Your task to perform on an android device: Open the calendar app, open the side menu, and click the "Day" option Image 0: 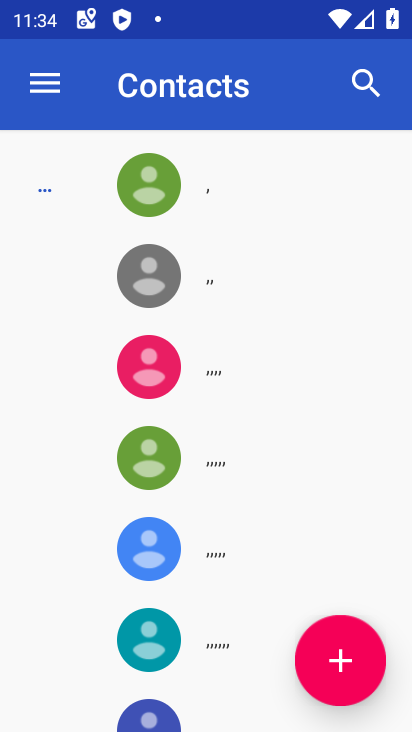
Step 0: press home button
Your task to perform on an android device: Open the calendar app, open the side menu, and click the "Day" option Image 1: 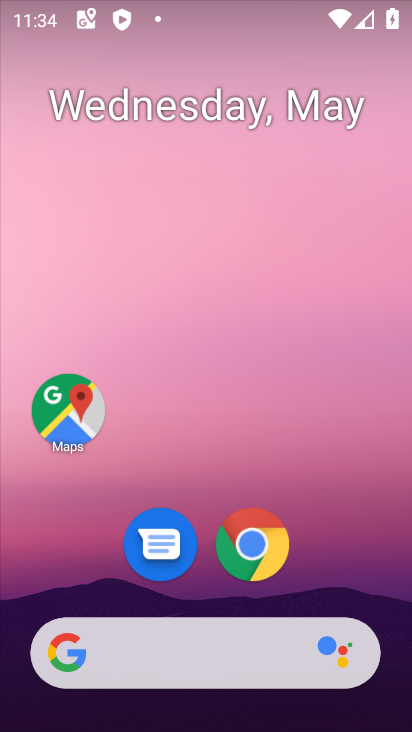
Step 1: drag from (279, 543) to (262, 31)
Your task to perform on an android device: Open the calendar app, open the side menu, and click the "Day" option Image 2: 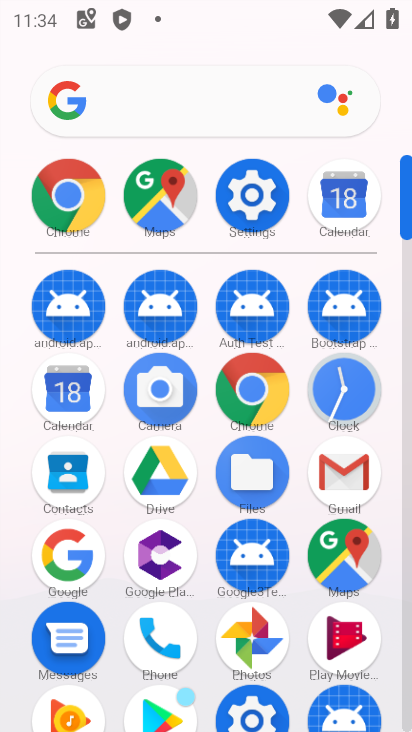
Step 2: click (61, 370)
Your task to perform on an android device: Open the calendar app, open the side menu, and click the "Day" option Image 3: 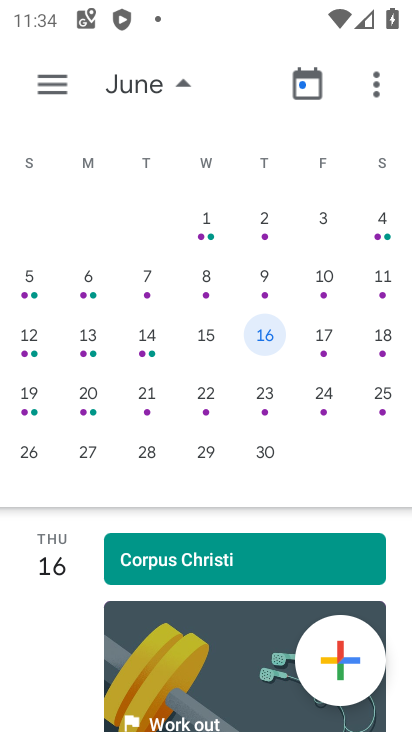
Step 3: click (56, 78)
Your task to perform on an android device: Open the calendar app, open the side menu, and click the "Day" option Image 4: 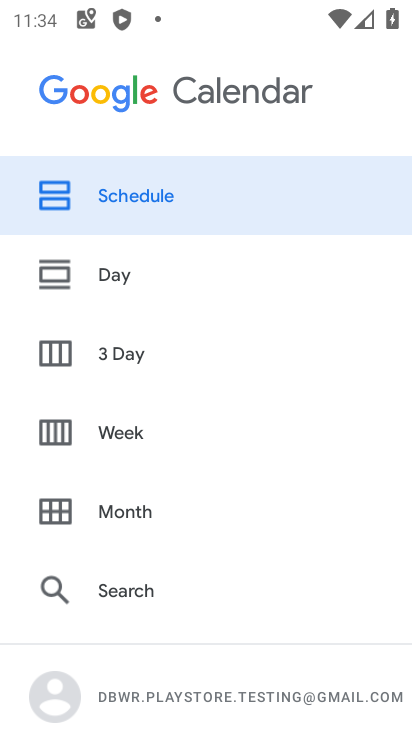
Step 4: click (113, 266)
Your task to perform on an android device: Open the calendar app, open the side menu, and click the "Day" option Image 5: 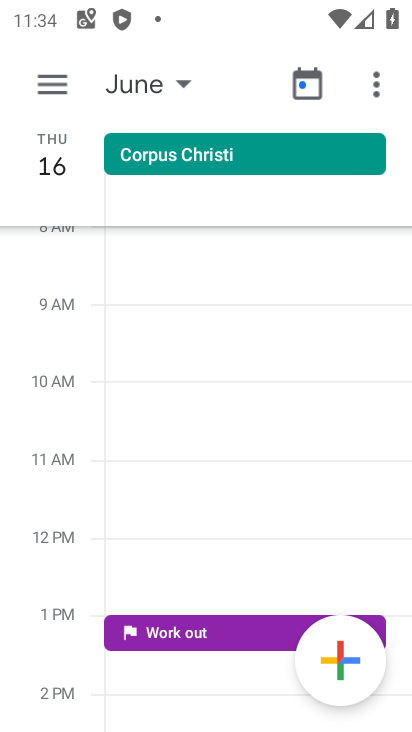
Step 5: task complete